Your task to perform on an android device: Open calendar and show me the fourth week of next month Image 0: 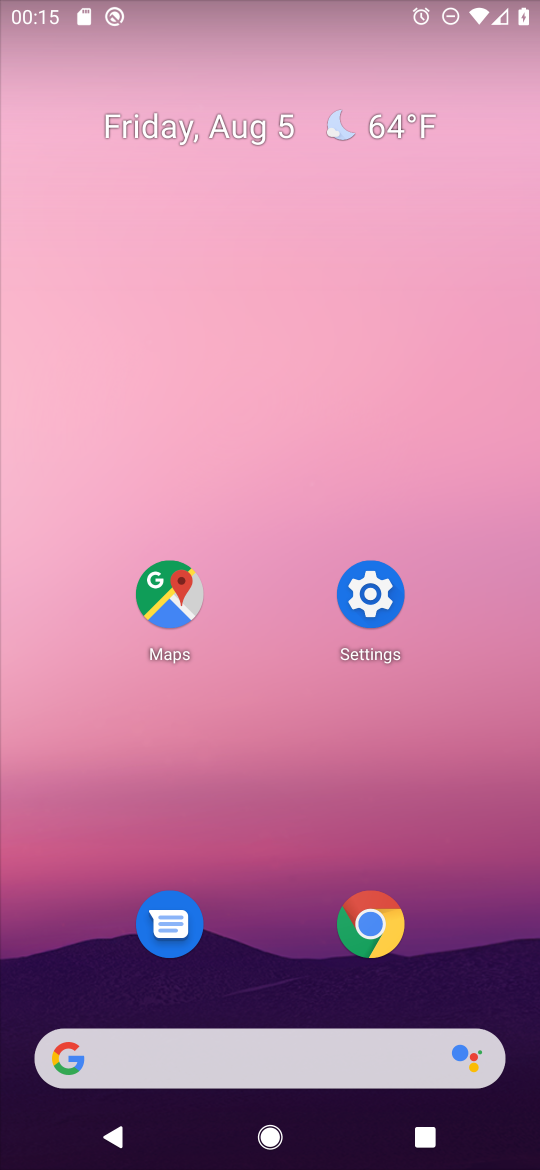
Step 0: press home button
Your task to perform on an android device: Open calendar and show me the fourth week of next month Image 1: 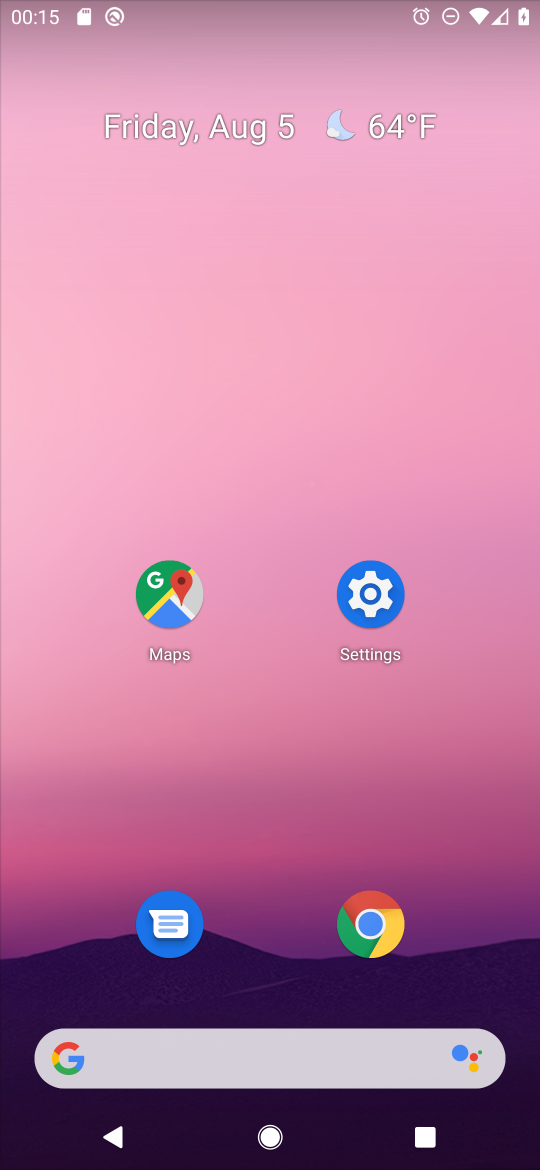
Step 1: drag from (206, 1066) to (500, 378)
Your task to perform on an android device: Open calendar and show me the fourth week of next month Image 2: 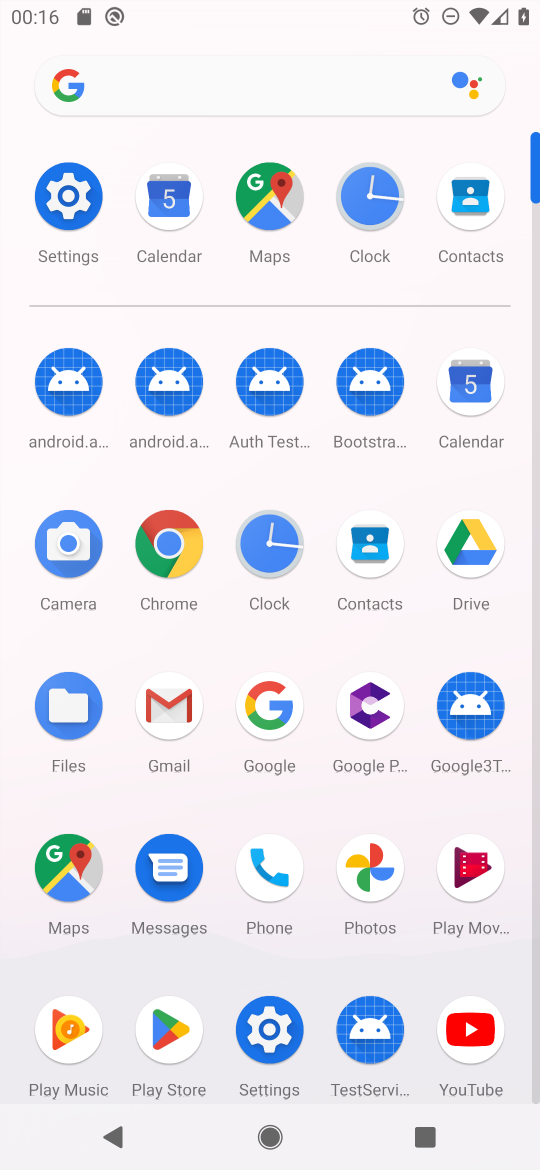
Step 2: click (475, 387)
Your task to perform on an android device: Open calendar and show me the fourth week of next month Image 3: 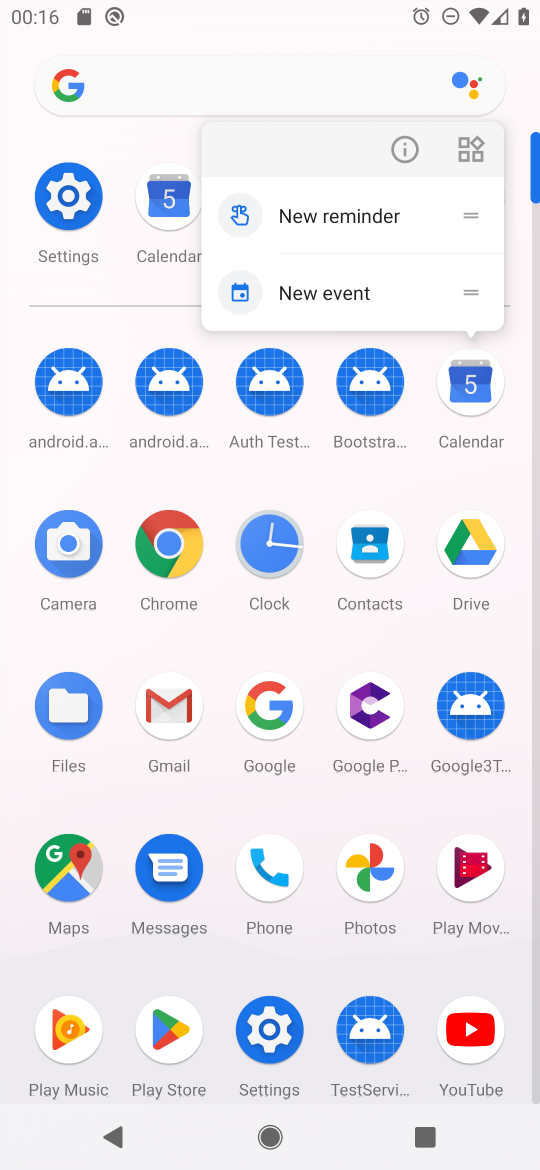
Step 3: click (475, 387)
Your task to perform on an android device: Open calendar and show me the fourth week of next month Image 4: 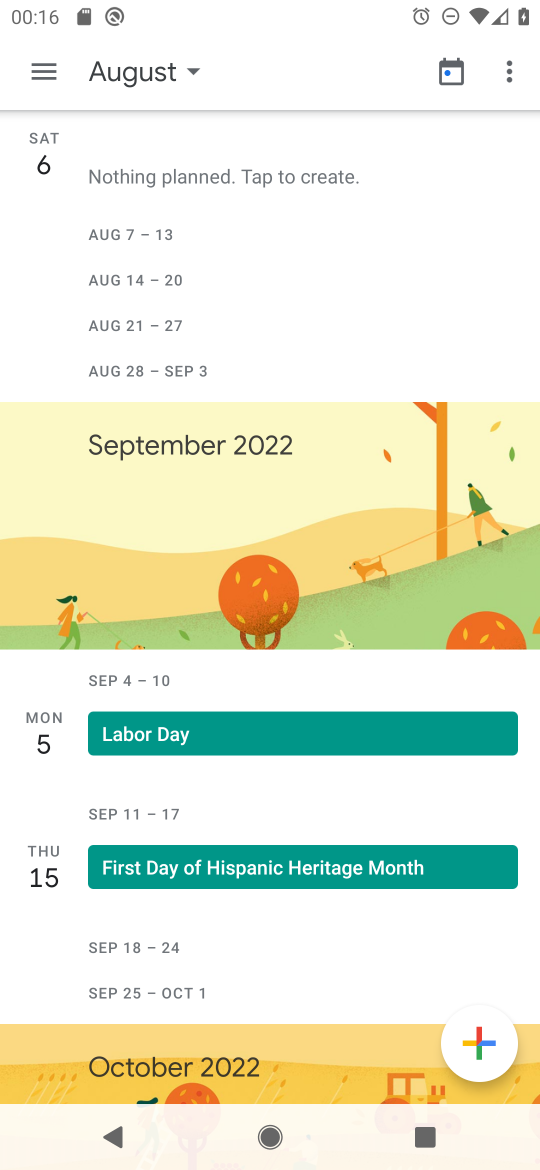
Step 4: click (158, 60)
Your task to perform on an android device: Open calendar and show me the fourth week of next month Image 5: 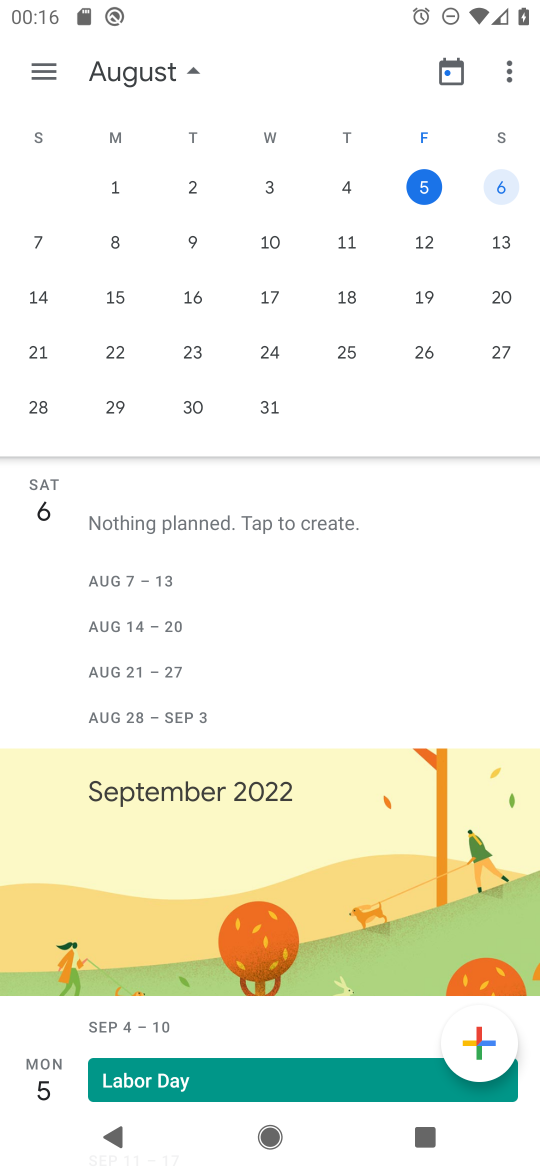
Step 5: drag from (474, 332) to (7, 331)
Your task to perform on an android device: Open calendar and show me the fourth week of next month Image 6: 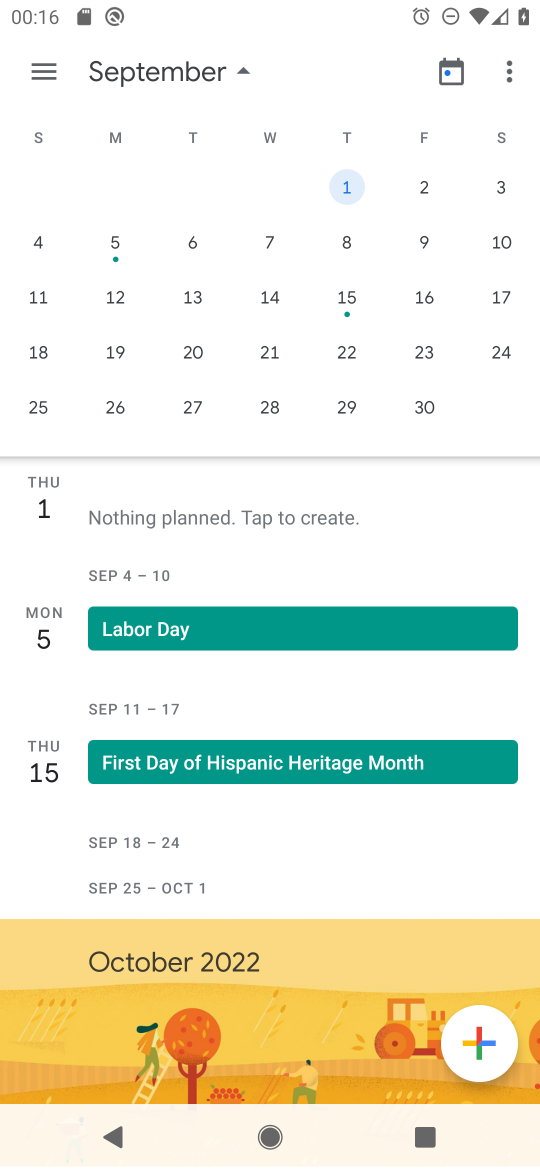
Step 6: click (33, 361)
Your task to perform on an android device: Open calendar and show me the fourth week of next month Image 7: 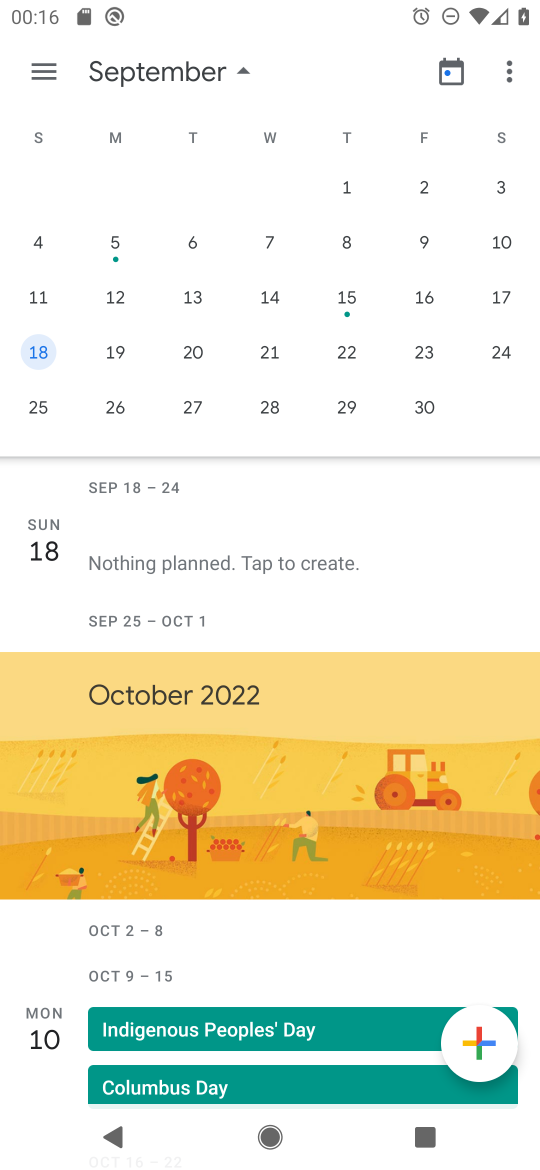
Step 7: click (40, 79)
Your task to perform on an android device: Open calendar and show me the fourth week of next month Image 8: 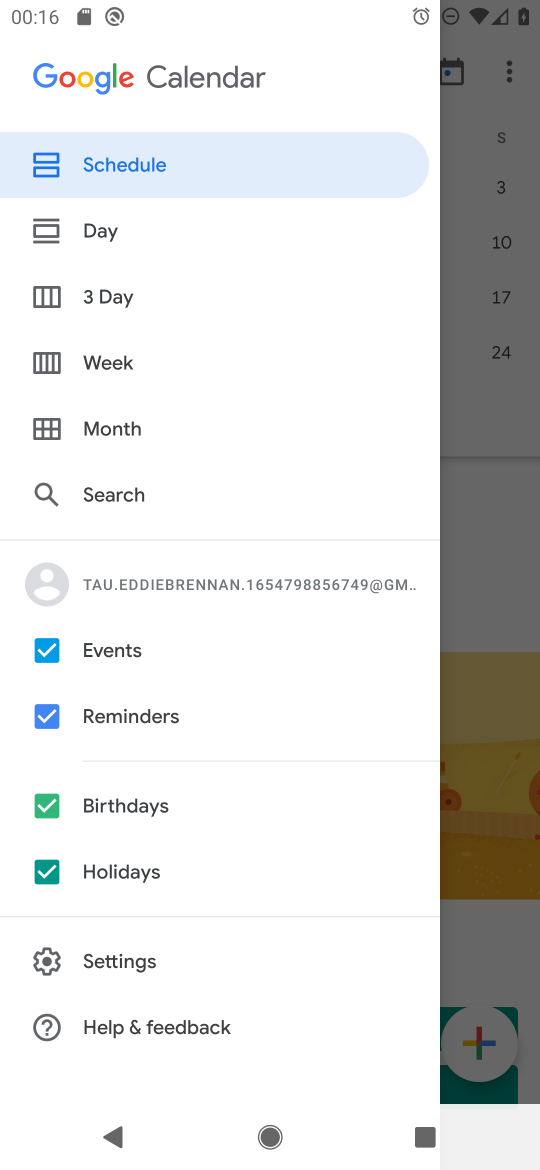
Step 8: click (118, 363)
Your task to perform on an android device: Open calendar and show me the fourth week of next month Image 9: 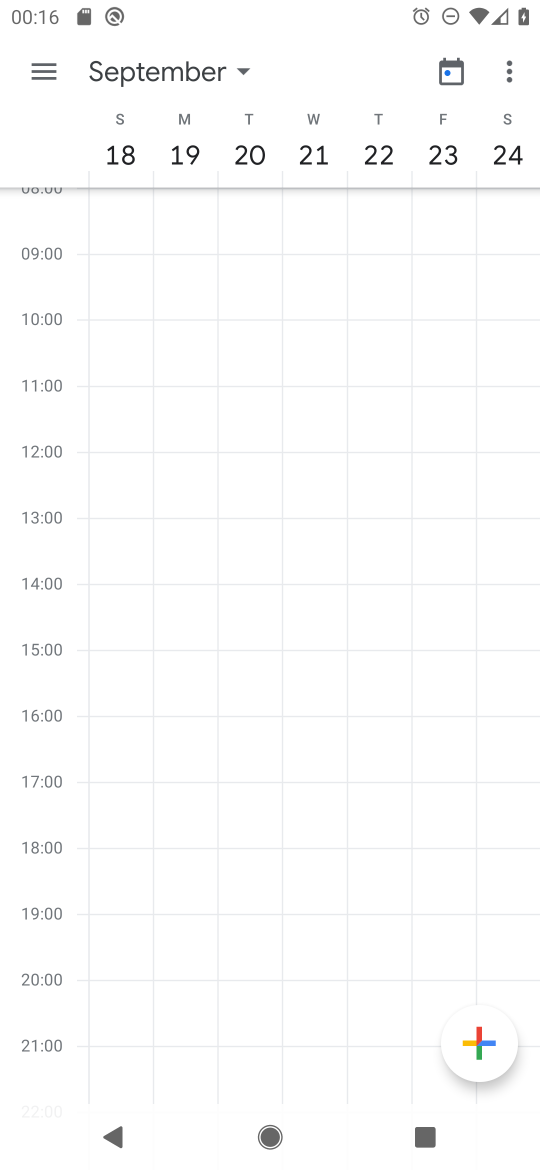
Step 9: task complete